Your task to perform on an android device: What's the weather? Image 0: 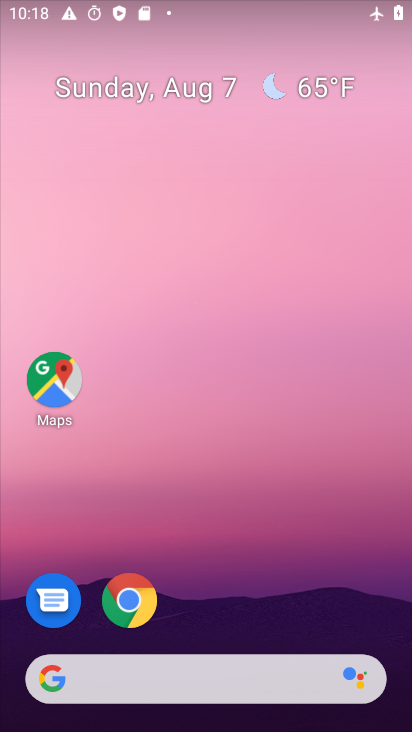
Step 0: drag from (241, 533) to (243, 129)
Your task to perform on an android device: What's the weather? Image 1: 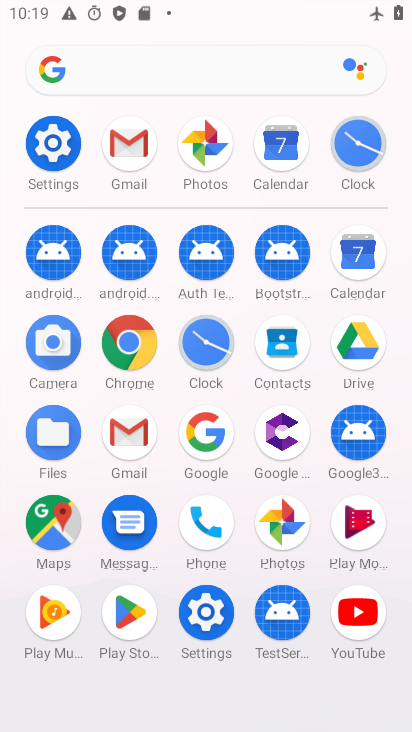
Step 1: click (208, 427)
Your task to perform on an android device: What's the weather? Image 2: 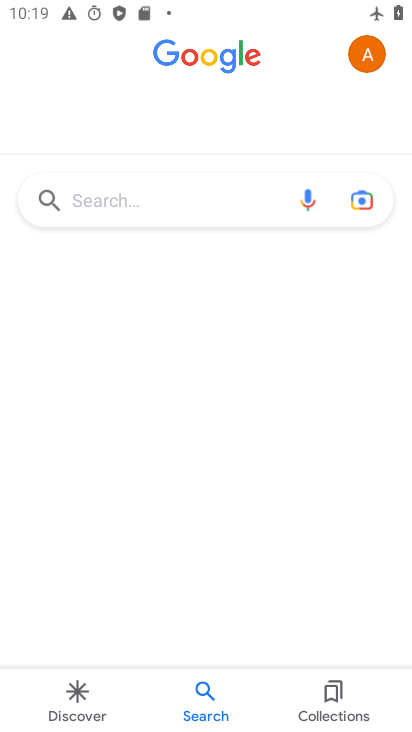
Step 2: click (182, 204)
Your task to perform on an android device: What's the weather? Image 3: 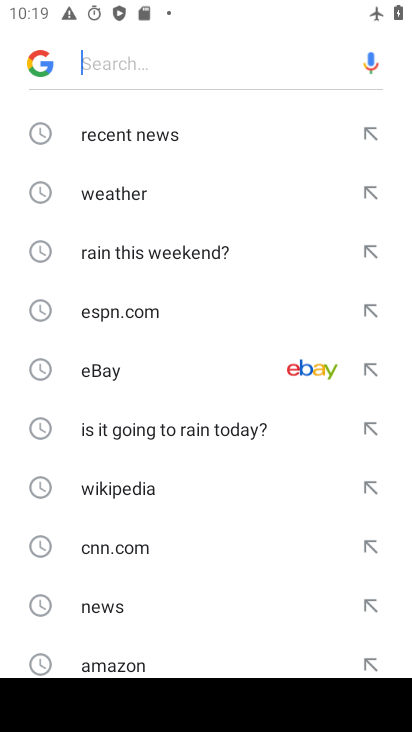
Step 3: click (133, 192)
Your task to perform on an android device: What's the weather? Image 4: 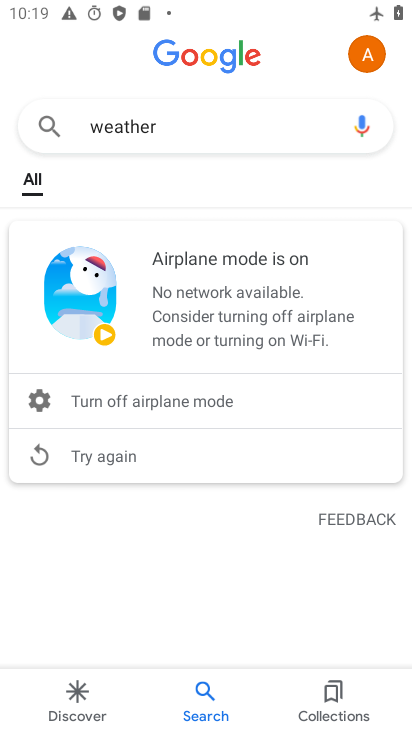
Step 4: task complete